Your task to perform on an android device: turn off notifications settings in the gmail app Image 0: 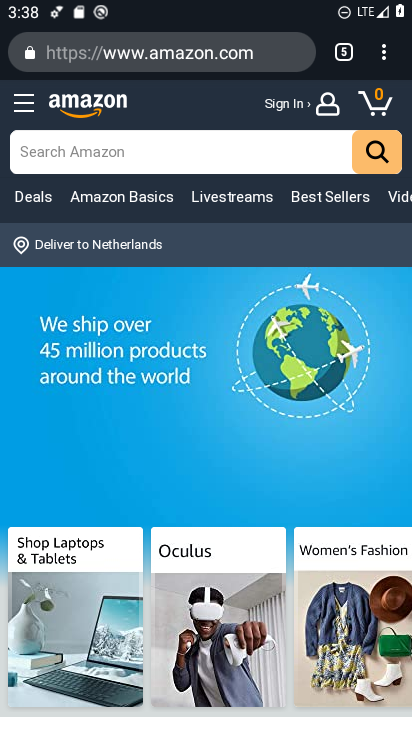
Step 0: press home button
Your task to perform on an android device: turn off notifications settings in the gmail app Image 1: 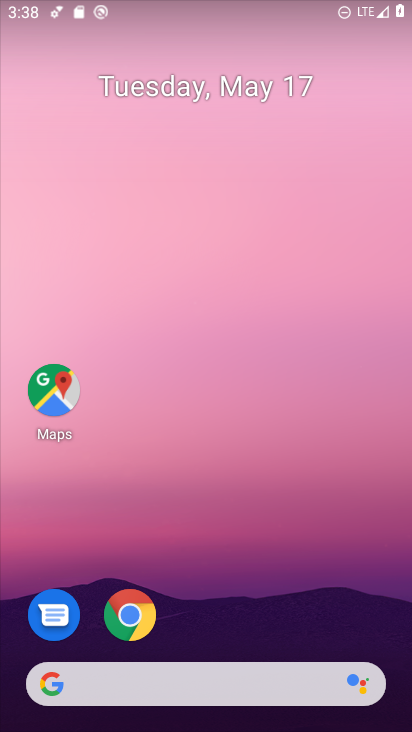
Step 1: drag from (205, 711) to (203, 329)
Your task to perform on an android device: turn off notifications settings in the gmail app Image 2: 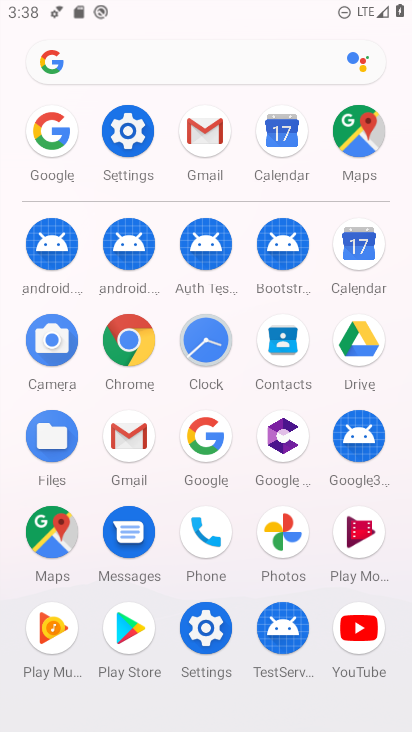
Step 2: click (134, 438)
Your task to perform on an android device: turn off notifications settings in the gmail app Image 3: 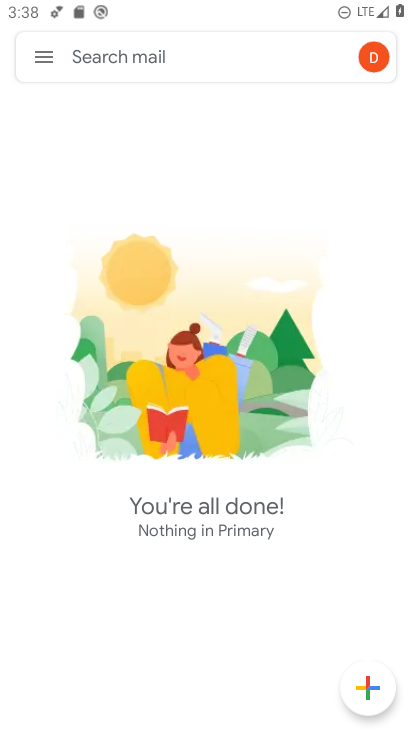
Step 3: click (42, 58)
Your task to perform on an android device: turn off notifications settings in the gmail app Image 4: 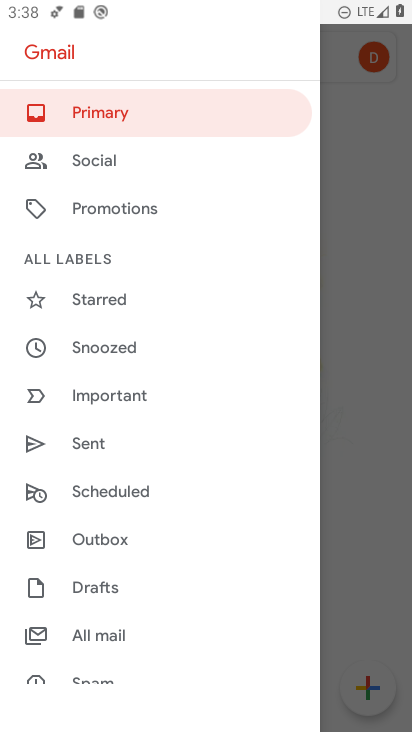
Step 4: drag from (135, 546) to (132, 218)
Your task to perform on an android device: turn off notifications settings in the gmail app Image 5: 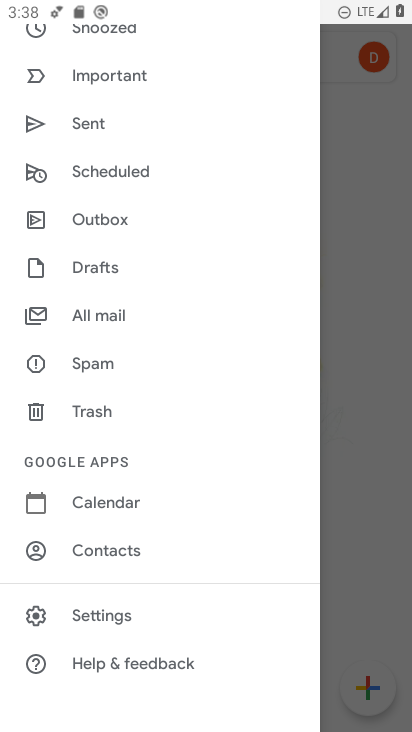
Step 5: click (91, 614)
Your task to perform on an android device: turn off notifications settings in the gmail app Image 6: 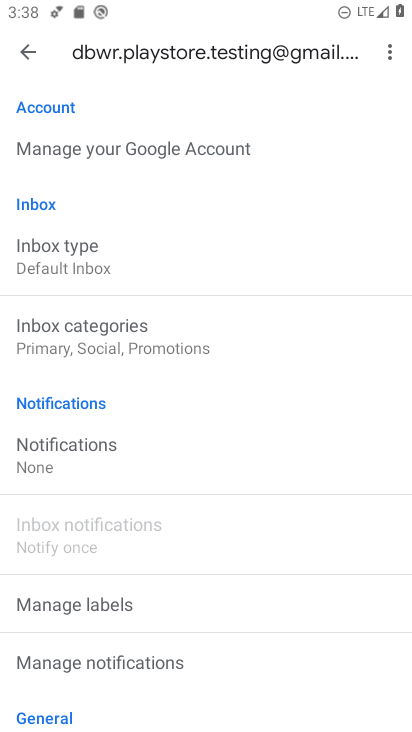
Step 6: task complete